Your task to perform on an android device: create a new album in the google photos Image 0: 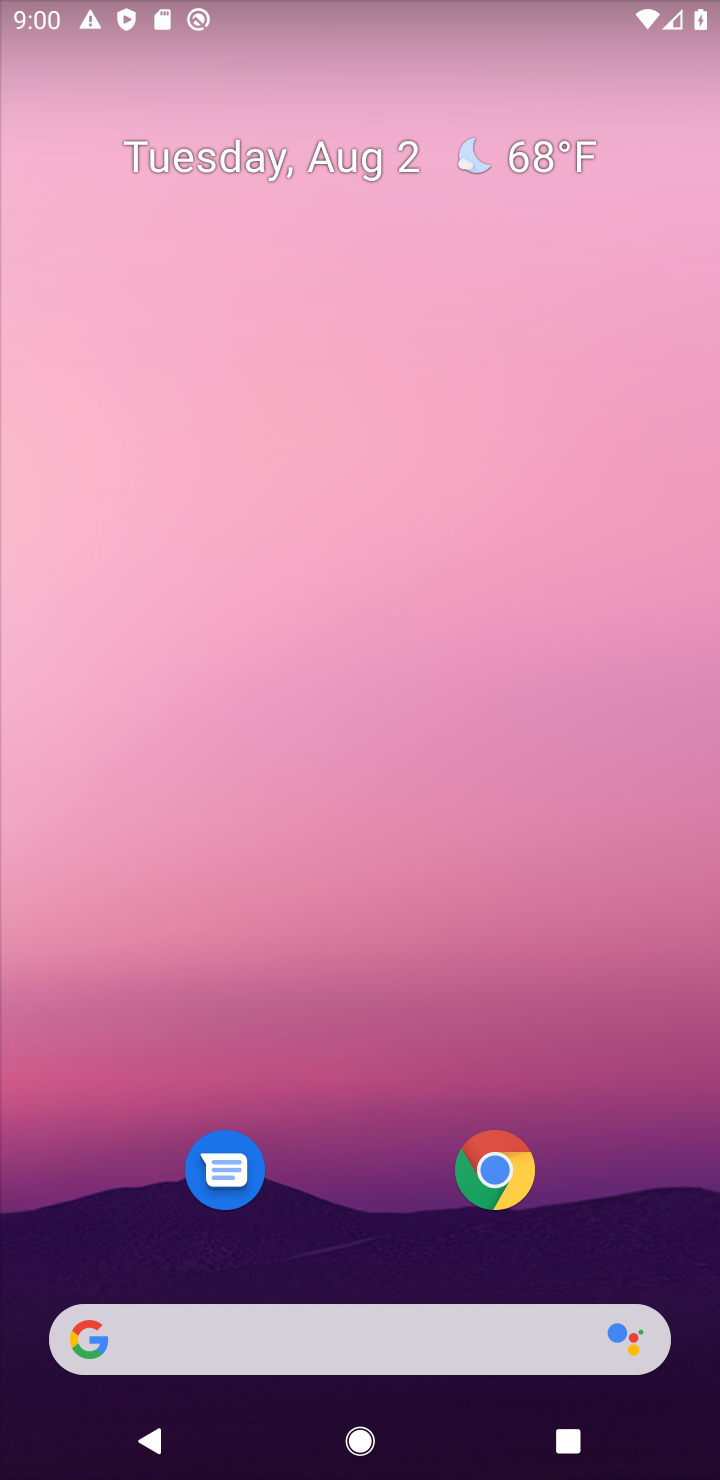
Step 0: drag from (325, 1176) to (338, 511)
Your task to perform on an android device: create a new album in the google photos Image 1: 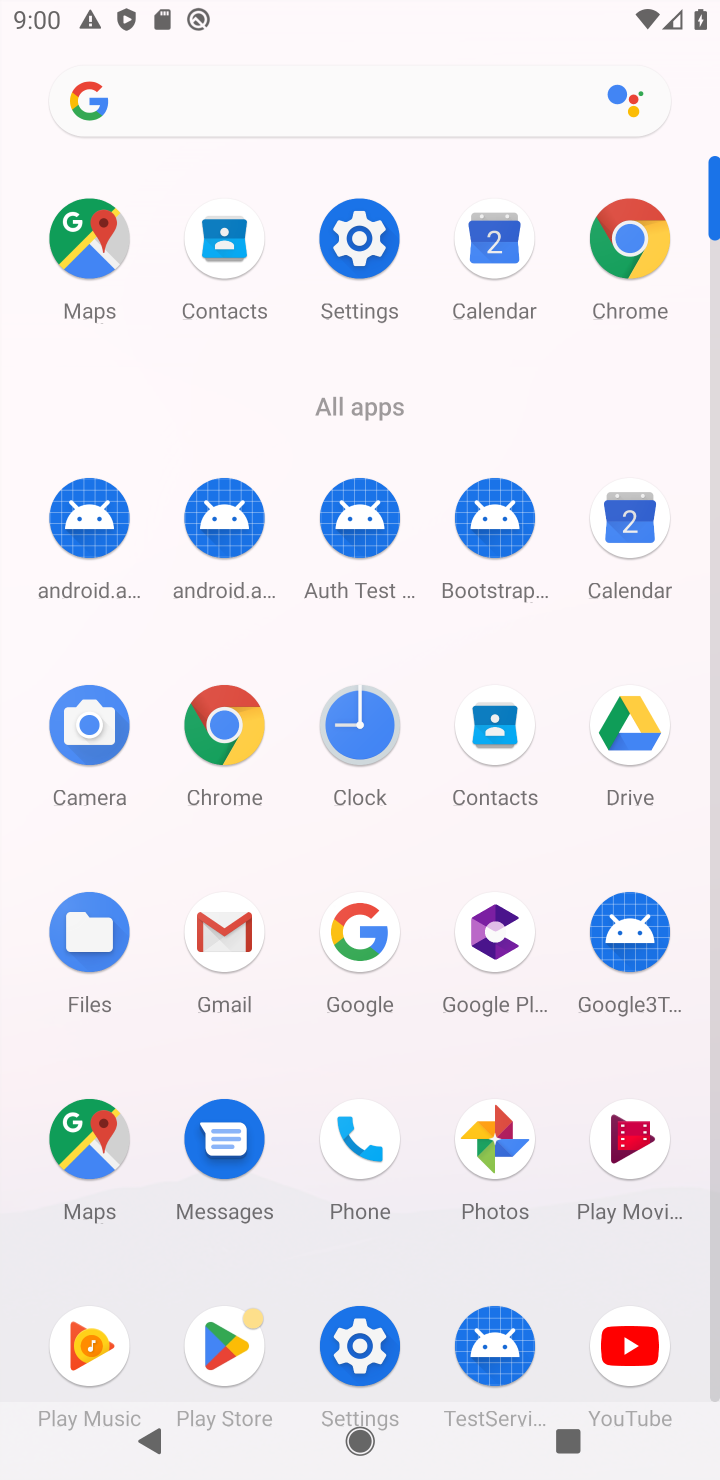
Step 1: click (473, 1173)
Your task to perform on an android device: create a new album in the google photos Image 2: 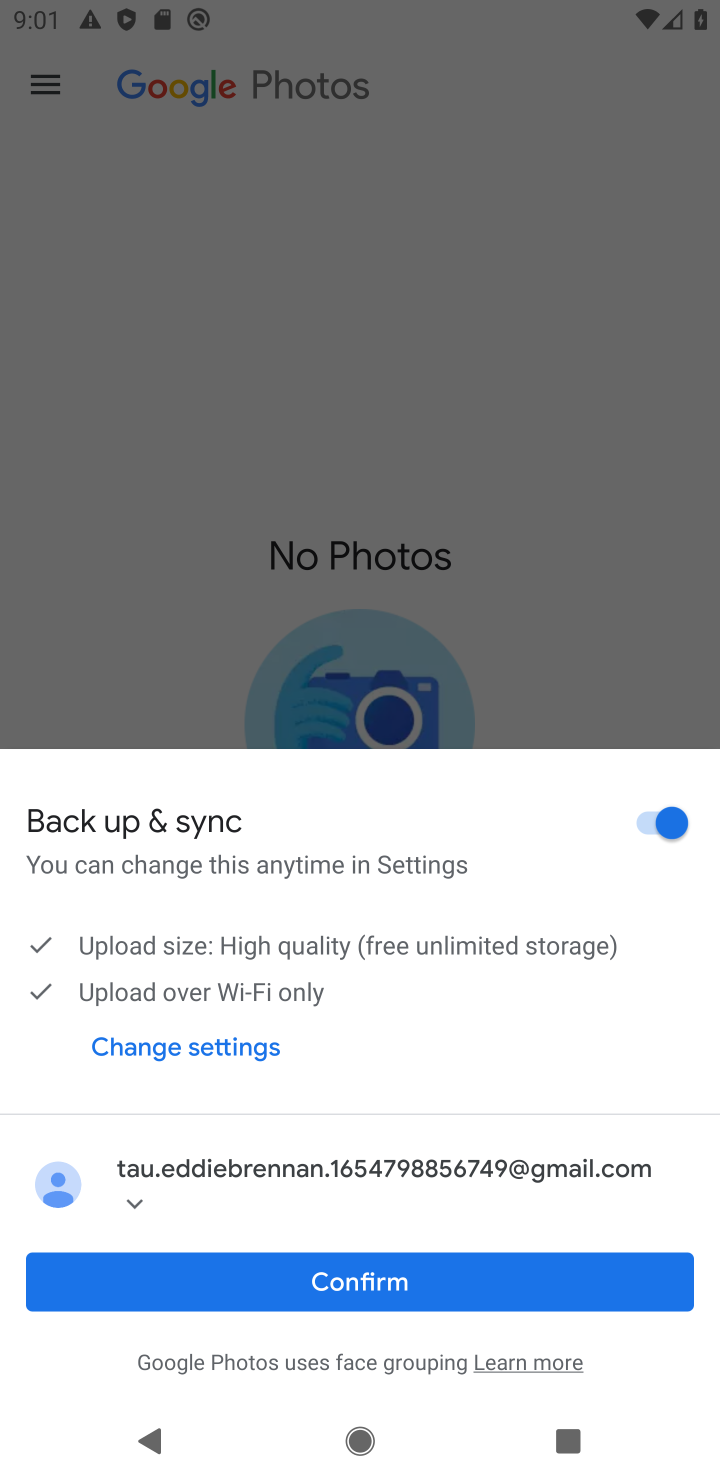
Step 2: click (374, 1280)
Your task to perform on an android device: create a new album in the google photos Image 3: 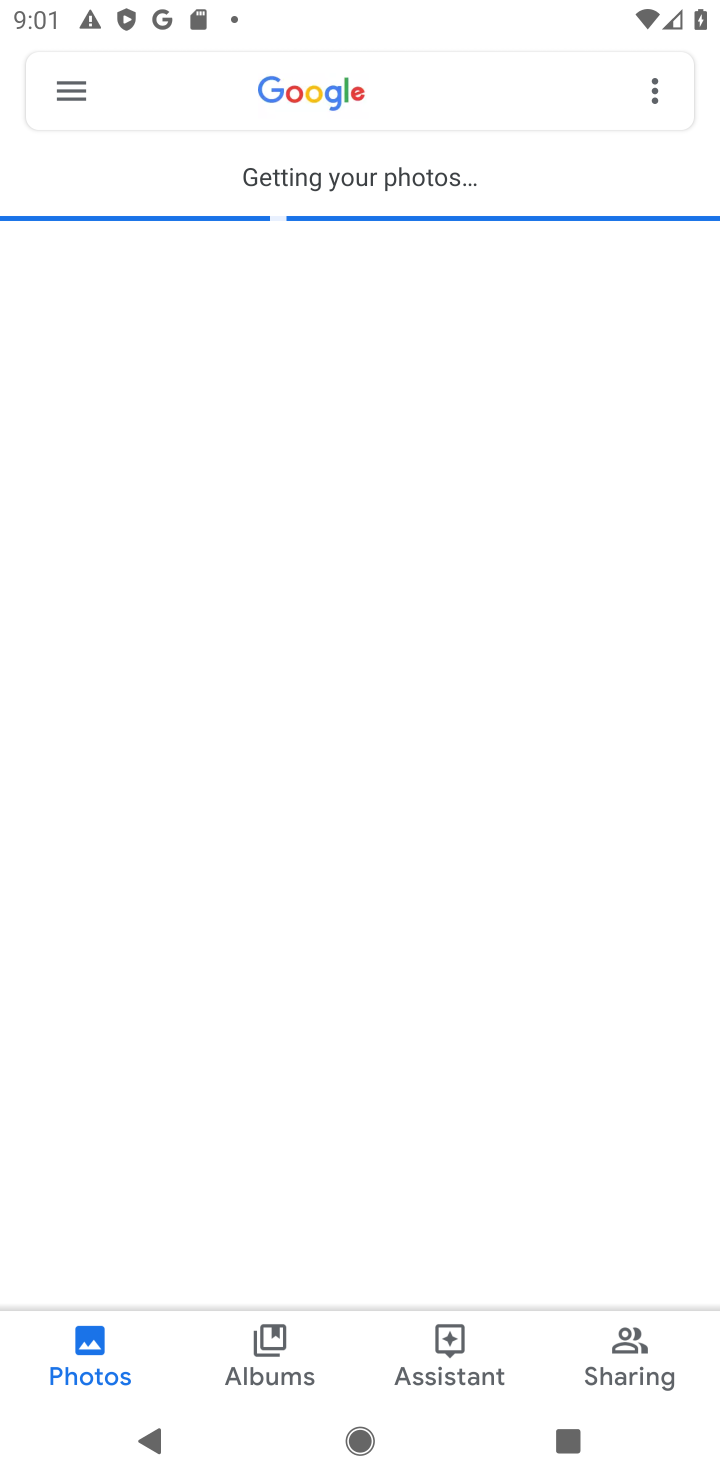
Step 3: click (262, 1344)
Your task to perform on an android device: create a new album in the google photos Image 4: 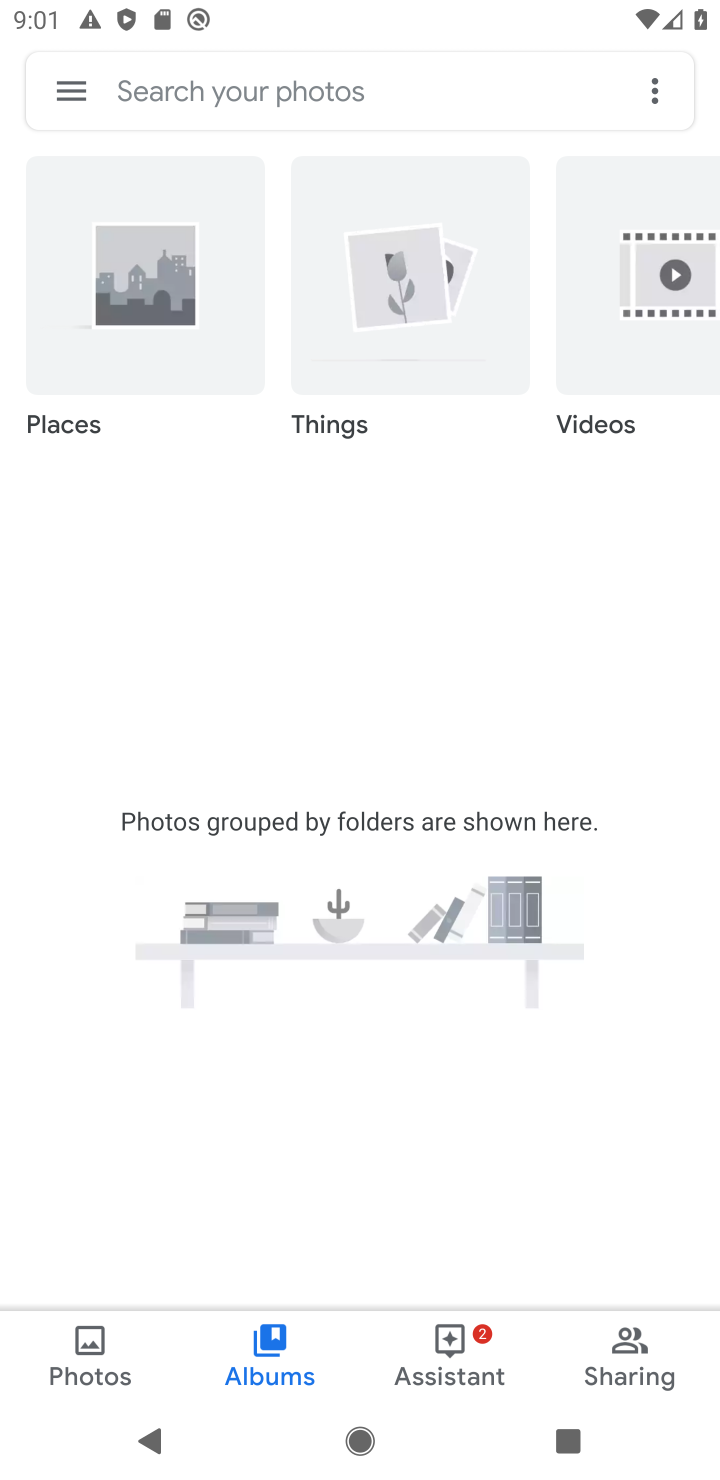
Step 4: drag from (308, 633) to (494, 0)
Your task to perform on an android device: create a new album in the google photos Image 5: 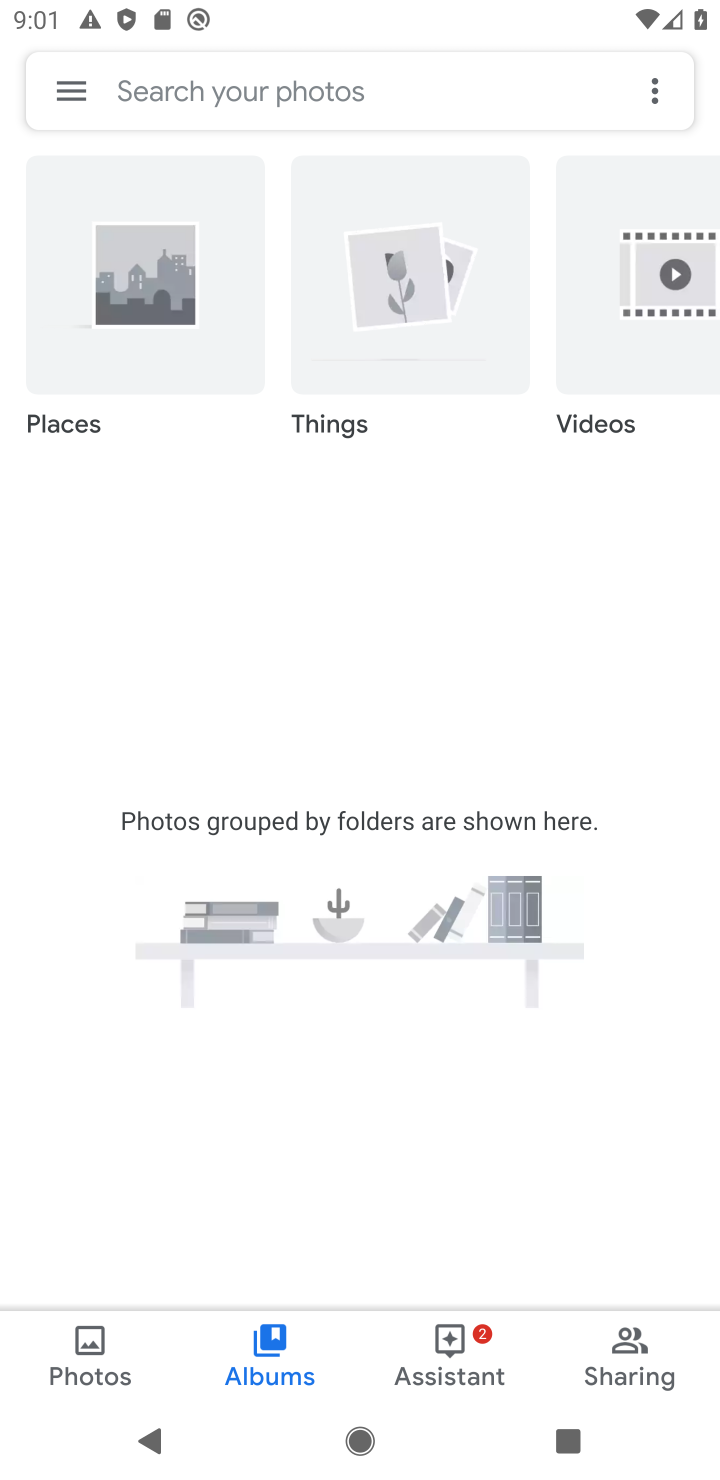
Step 5: drag from (385, 933) to (433, 475)
Your task to perform on an android device: create a new album in the google photos Image 6: 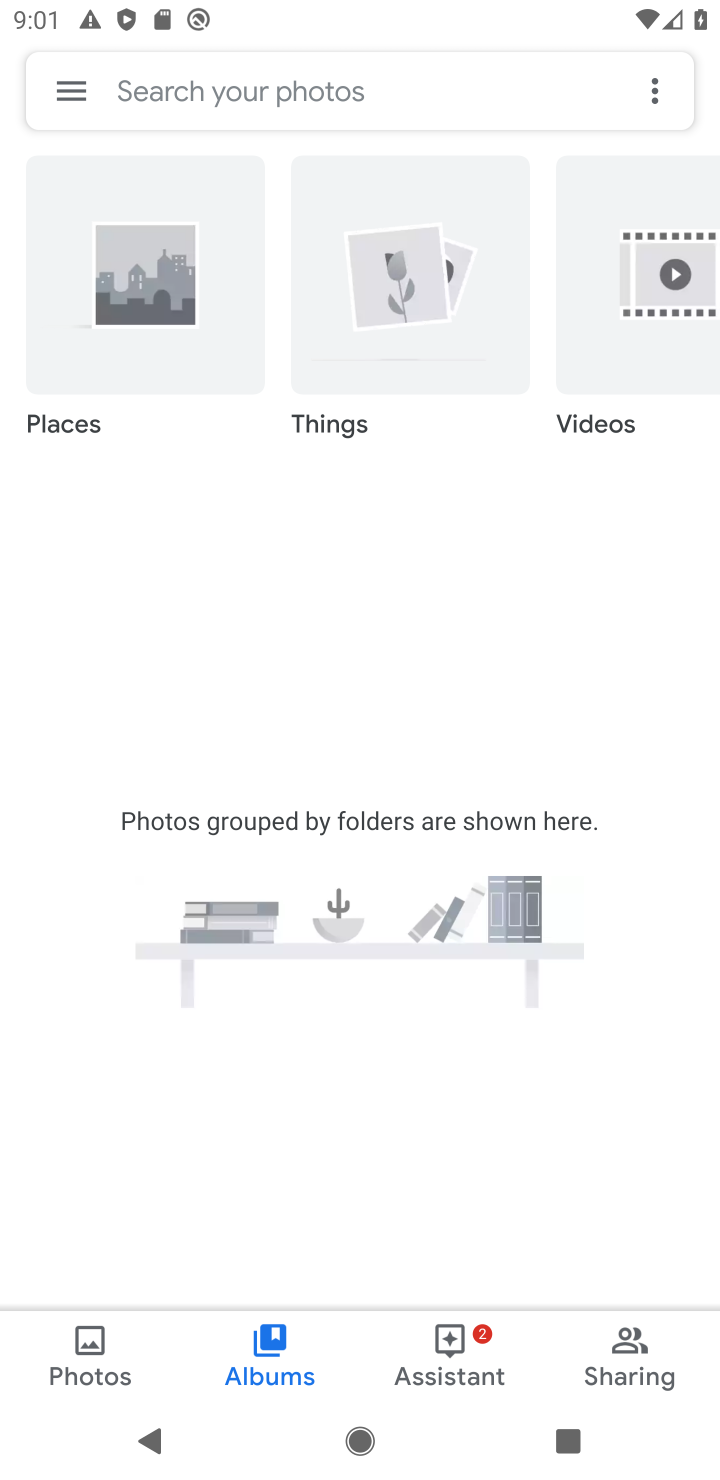
Step 6: drag from (421, 634) to (426, 1200)
Your task to perform on an android device: create a new album in the google photos Image 7: 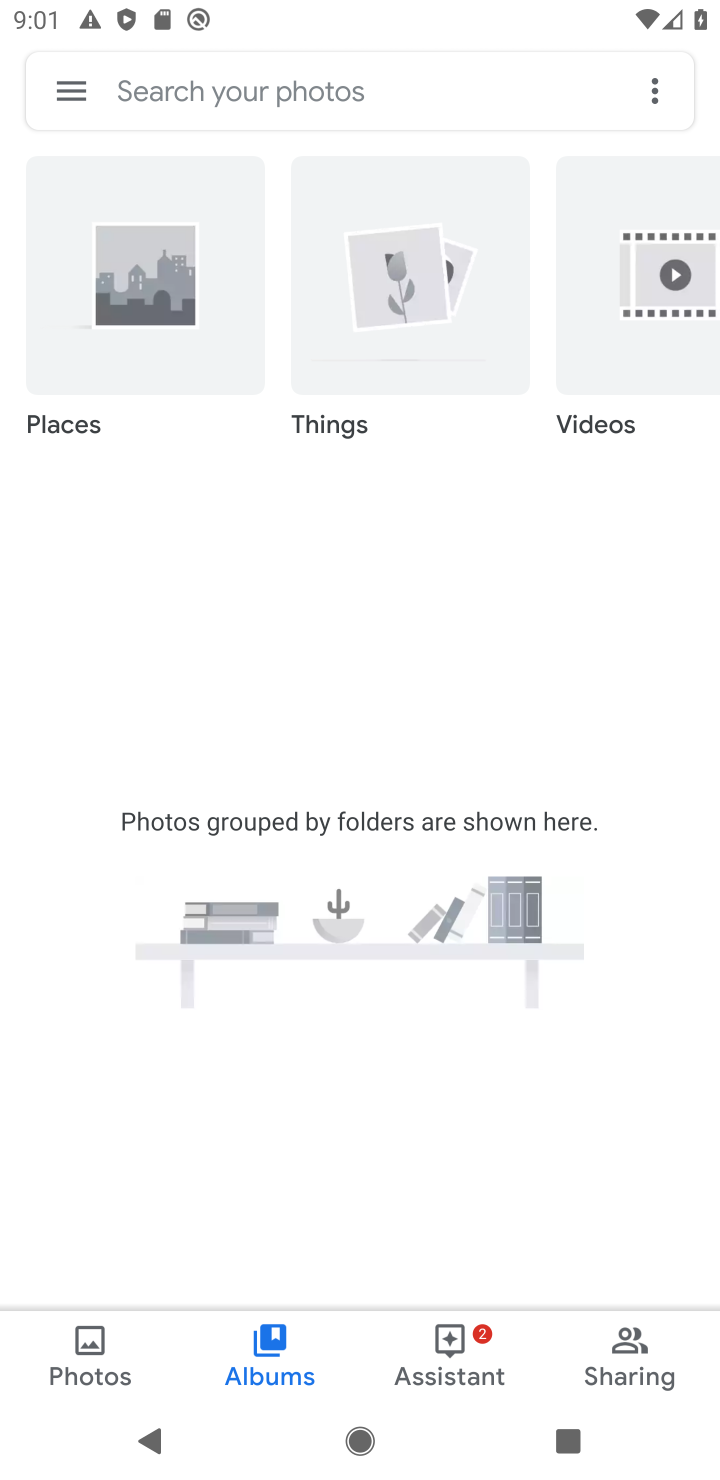
Step 7: drag from (412, 614) to (369, 1426)
Your task to perform on an android device: create a new album in the google photos Image 8: 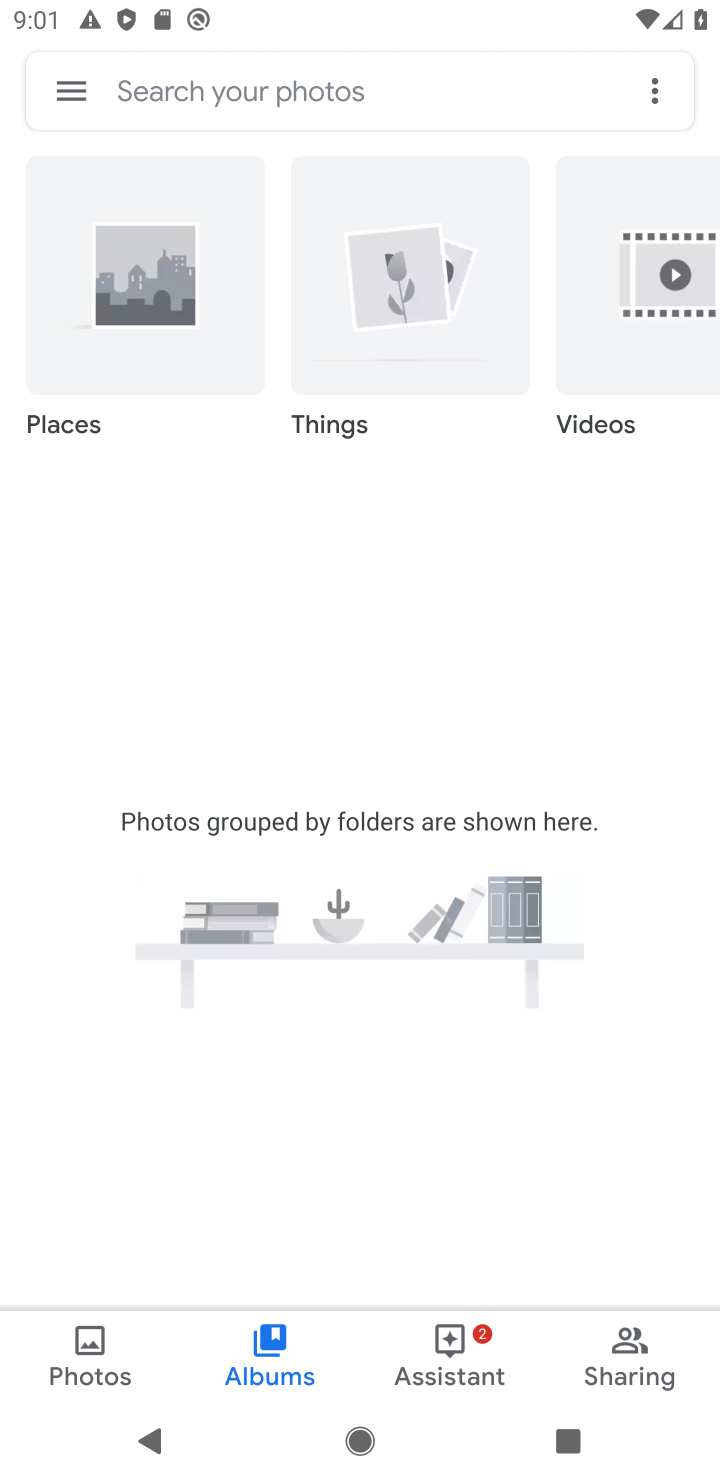
Step 8: drag from (281, 1079) to (400, 446)
Your task to perform on an android device: create a new album in the google photos Image 9: 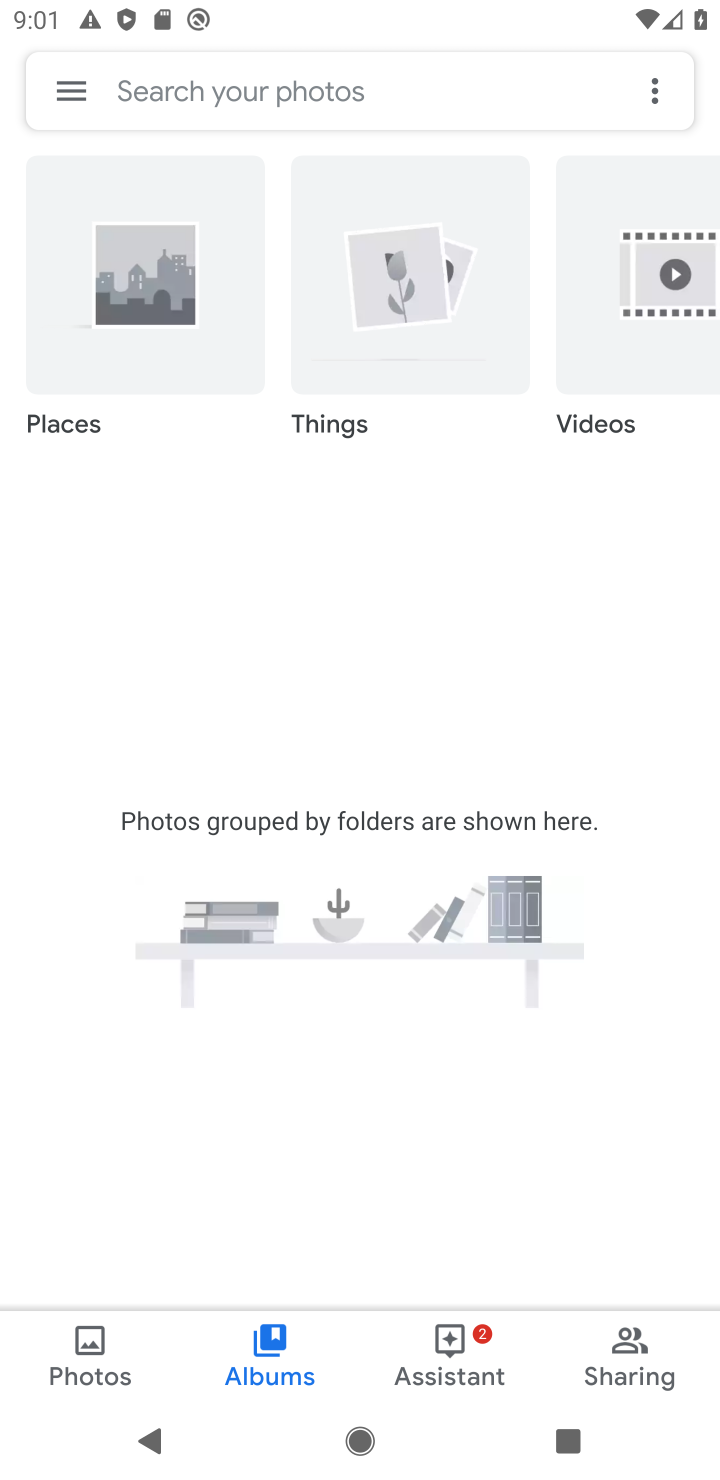
Step 9: drag from (442, 919) to (674, 135)
Your task to perform on an android device: create a new album in the google photos Image 10: 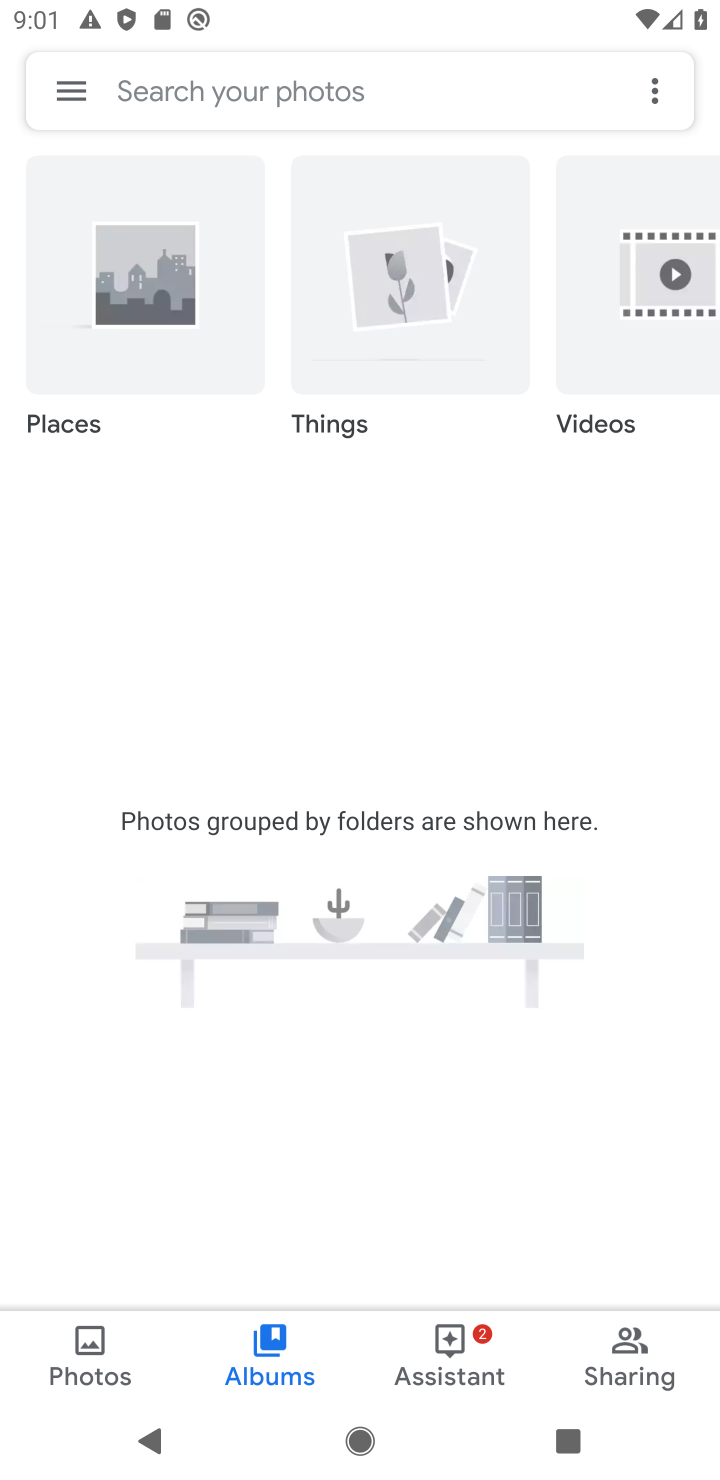
Step 10: click (655, 90)
Your task to perform on an android device: create a new album in the google photos Image 11: 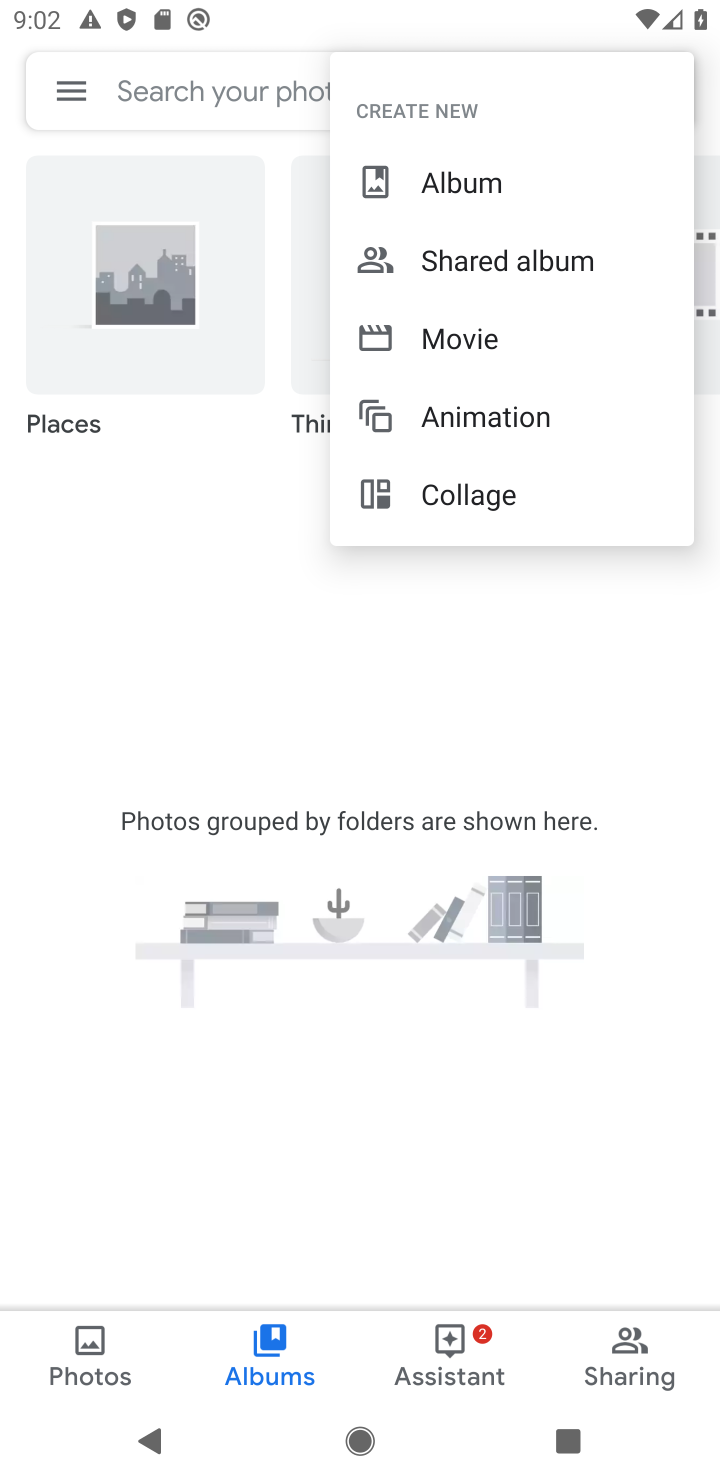
Step 11: click (514, 185)
Your task to perform on an android device: create a new album in the google photos Image 12: 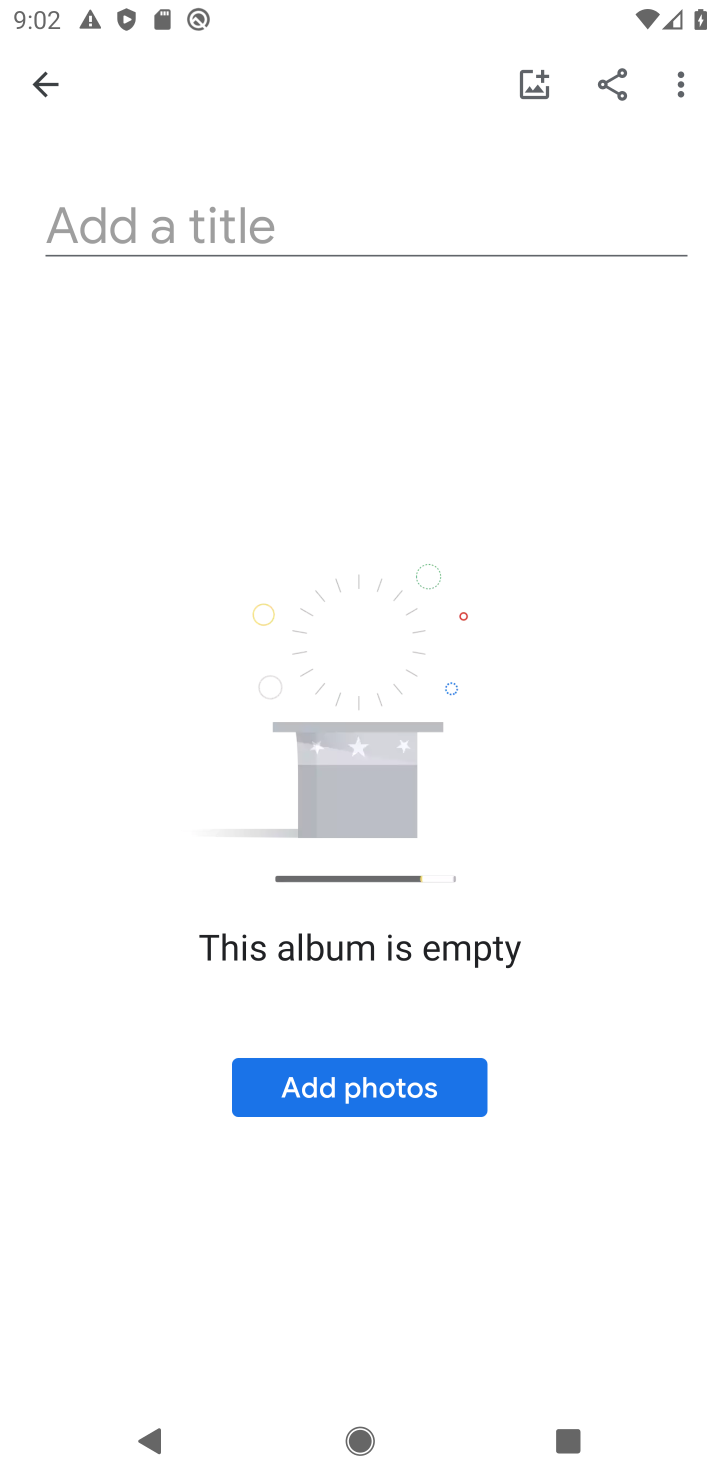
Step 12: click (380, 1094)
Your task to perform on an android device: create a new album in the google photos Image 13: 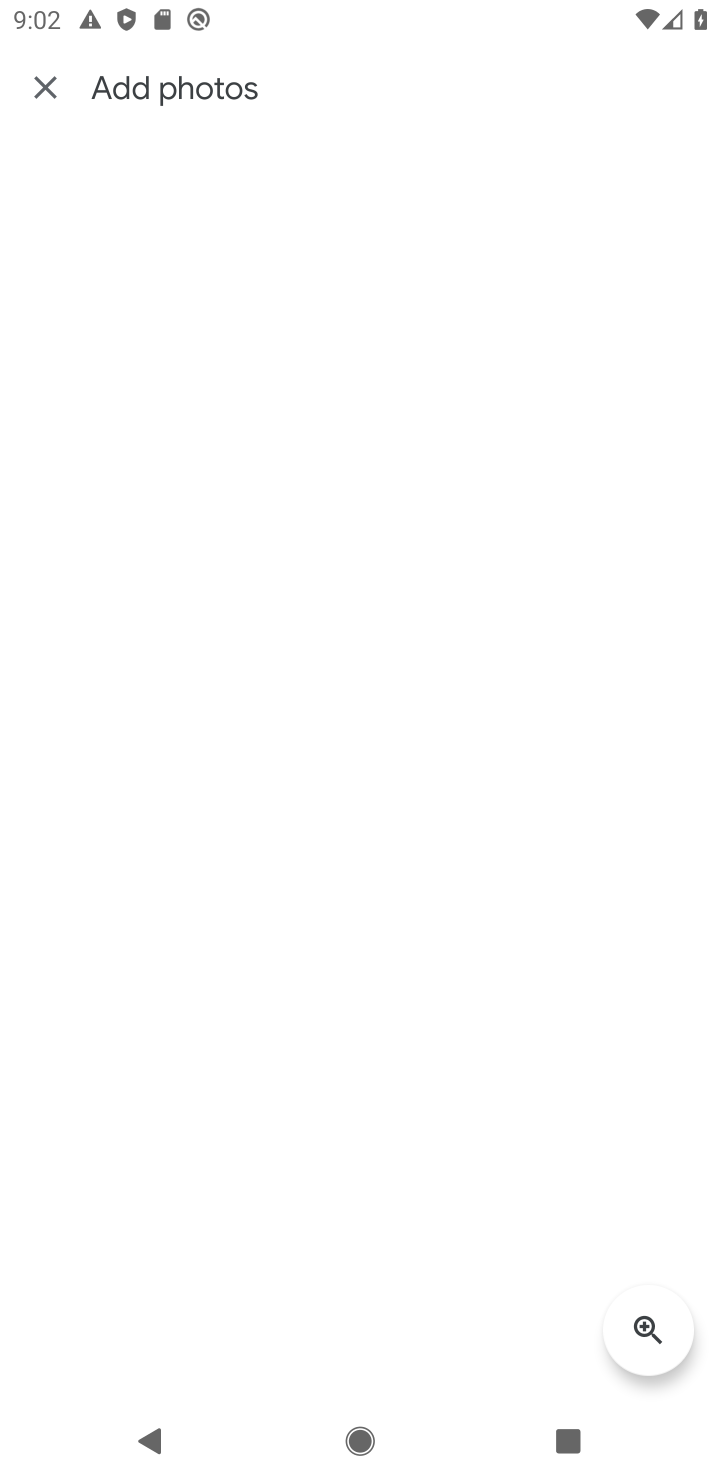
Step 13: task complete